Your task to perform on an android device: Open Amazon Image 0: 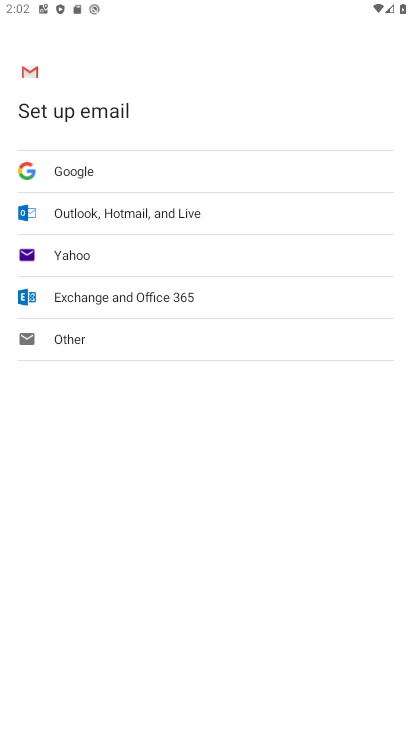
Step 0: press home button
Your task to perform on an android device: Open Amazon Image 1: 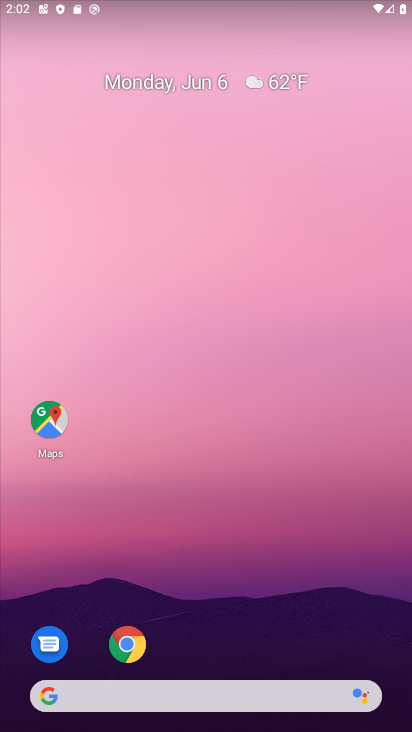
Step 1: click (135, 650)
Your task to perform on an android device: Open Amazon Image 2: 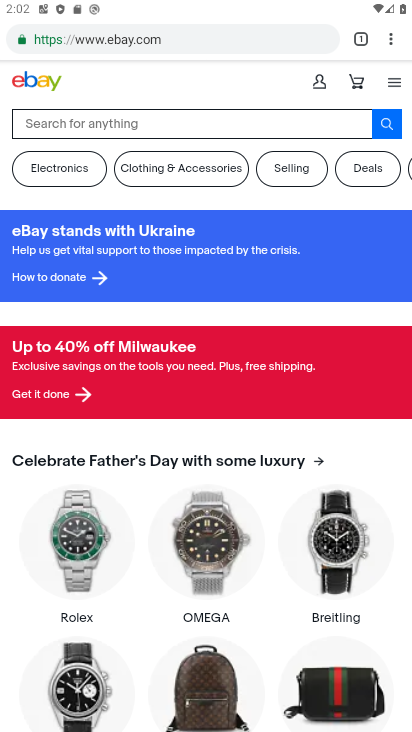
Step 2: click (365, 29)
Your task to perform on an android device: Open Amazon Image 3: 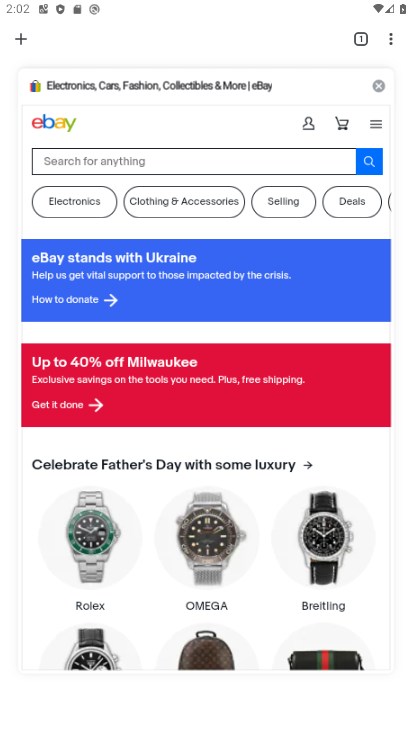
Step 3: click (376, 81)
Your task to perform on an android device: Open Amazon Image 4: 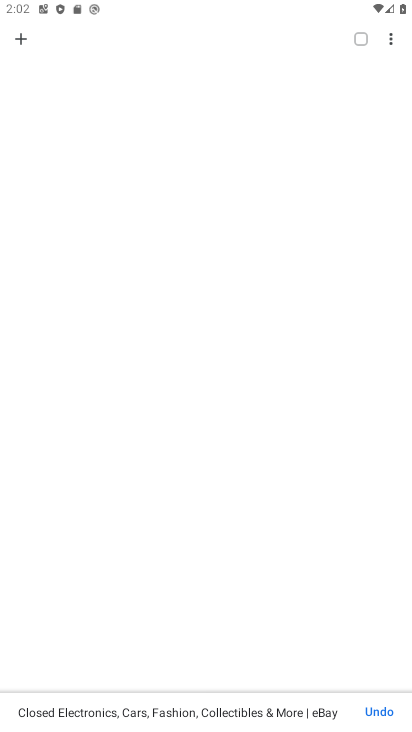
Step 4: click (15, 41)
Your task to perform on an android device: Open Amazon Image 5: 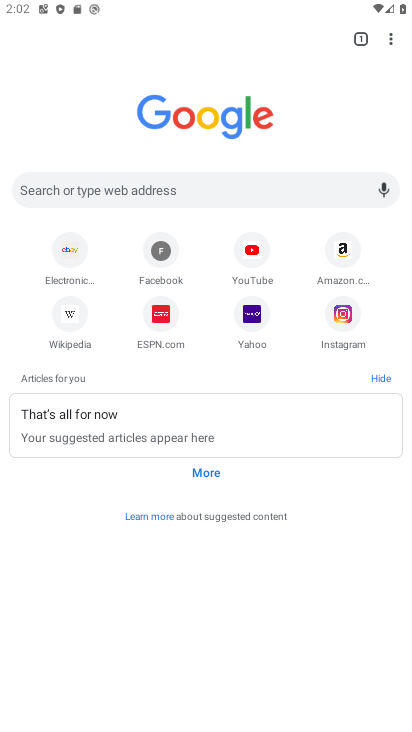
Step 5: click (335, 254)
Your task to perform on an android device: Open Amazon Image 6: 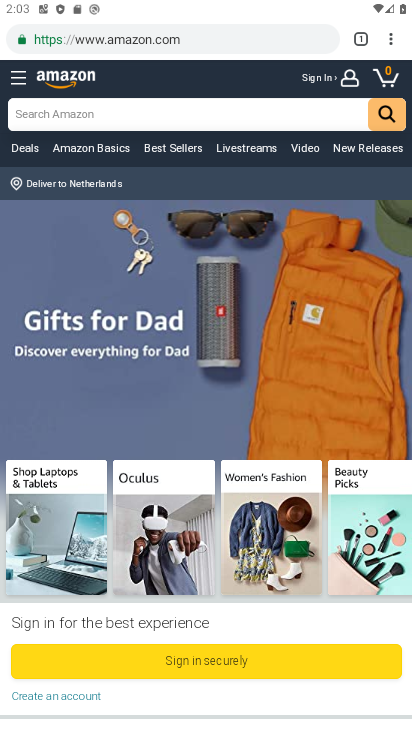
Step 6: task complete